Your task to perform on an android device: Open calendar and show me the second week of next month Image 0: 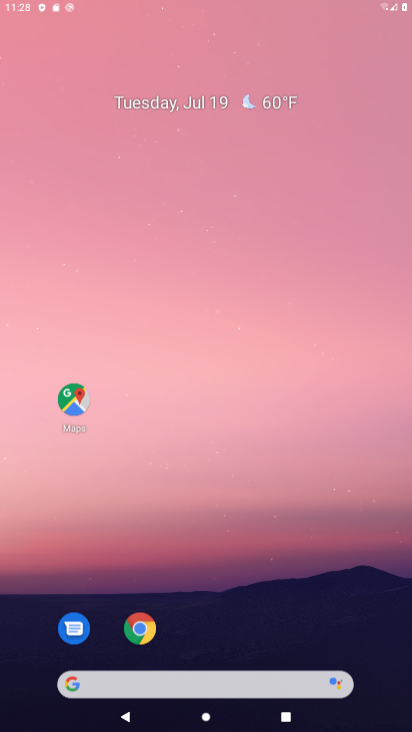
Step 0: click (284, 12)
Your task to perform on an android device: Open calendar and show me the second week of next month Image 1: 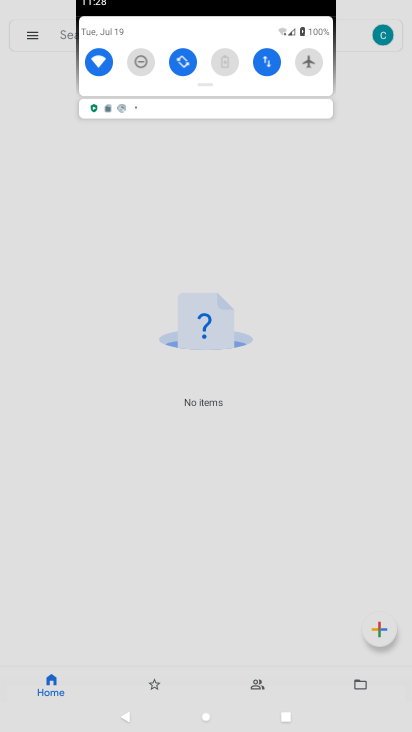
Step 1: press home button
Your task to perform on an android device: Open calendar and show me the second week of next month Image 2: 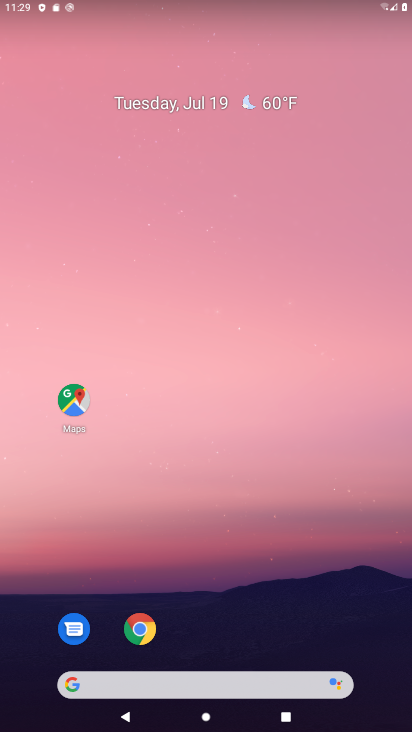
Step 2: drag from (277, 601) to (248, 82)
Your task to perform on an android device: Open calendar and show me the second week of next month Image 3: 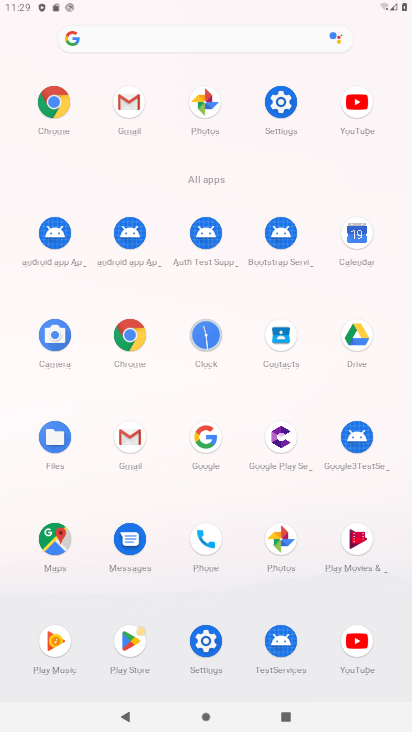
Step 3: click (364, 241)
Your task to perform on an android device: Open calendar and show me the second week of next month Image 4: 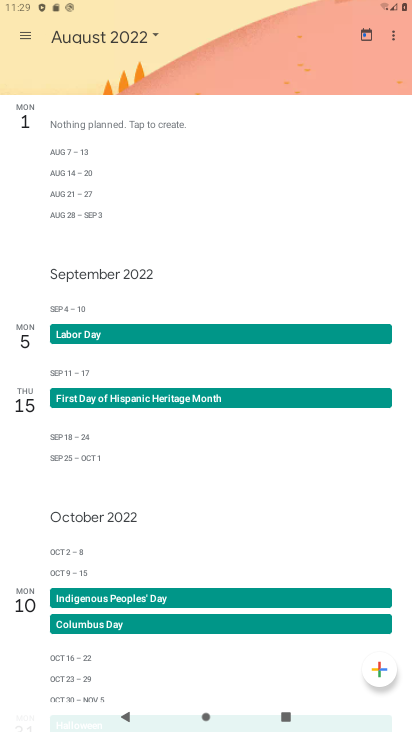
Step 4: click (126, 31)
Your task to perform on an android device: Open calendar and show me the second week of next month Image 5: 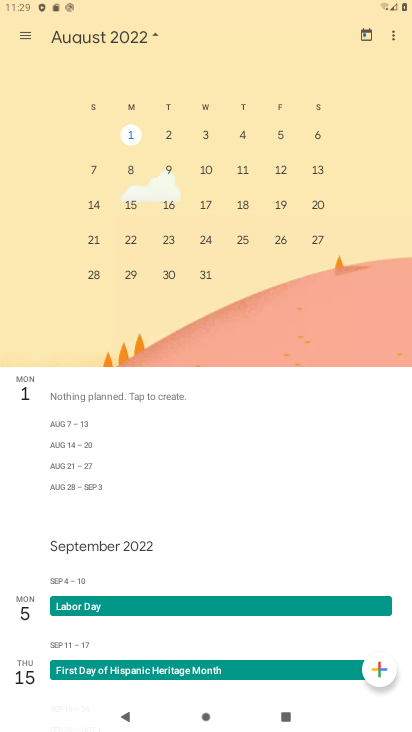
Step 5: click (101, 168)
Your task to perform on an android device: Open calendar and show me the second week of next month Image 6: 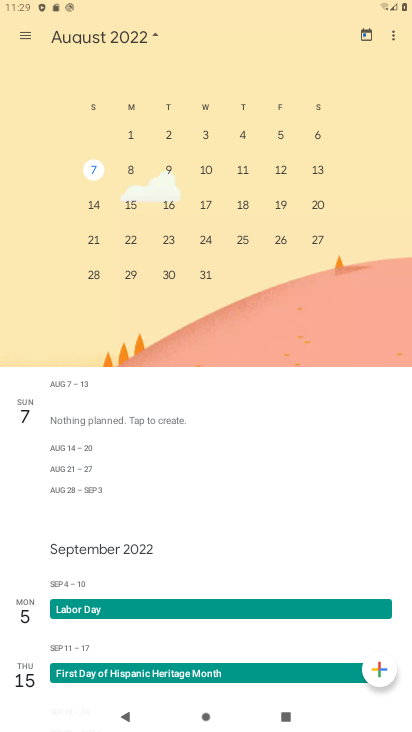
Step 6: task complete